Your task to perform on an android device: Open Google Maps Image 0: 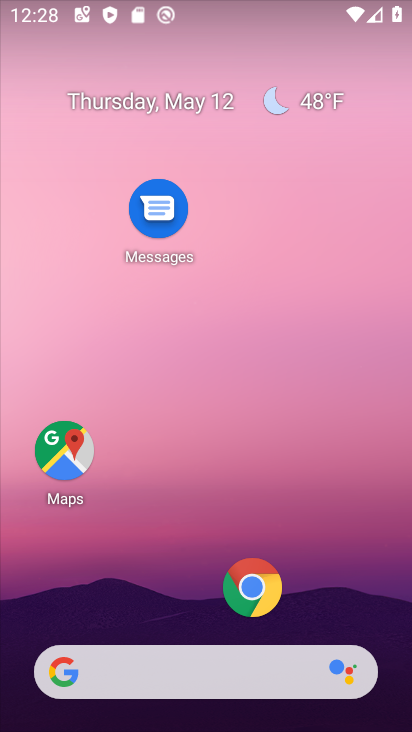
Step 0: drag from (198, 627) to (149, 17)
Your task to perform on an android device: Open Google Maps Image 1: 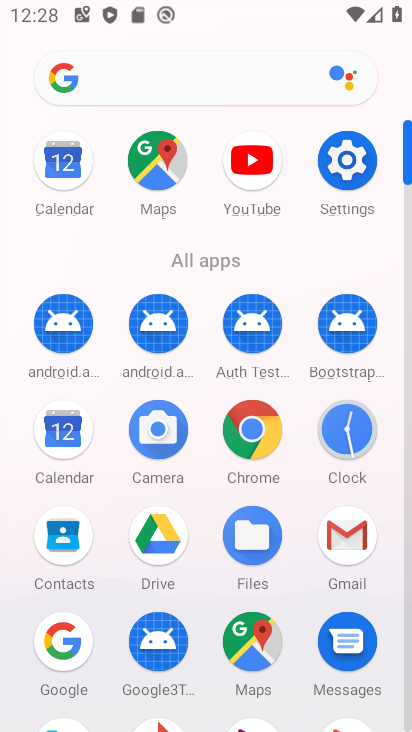
Step 1: click (258, 639)
Your task to perform on an android device: Open Google Maps Image 2: 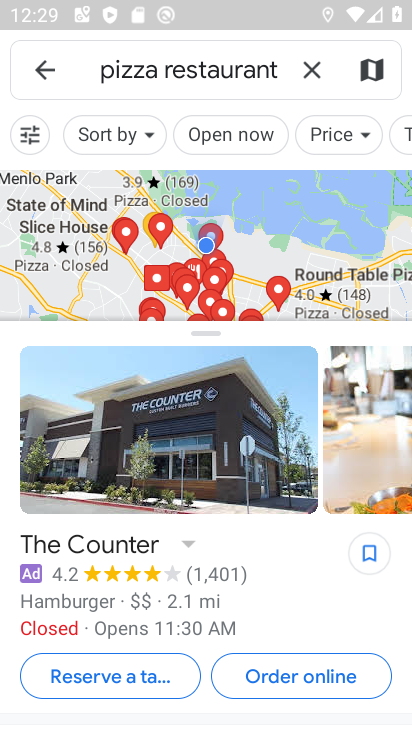
Step 2: task complete